Your task to perform on an android device: move an email to a new category in the gmail app Image 0: 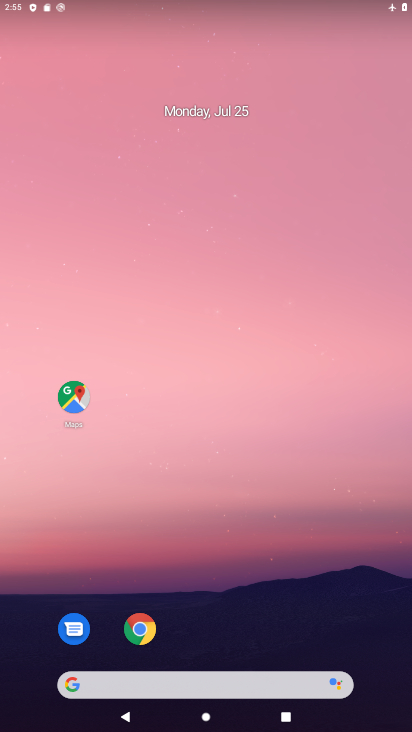
Step 0: drag from (302, 662) to (260, 0)
Your task to perform on an android device: move an email to a new category in the gmail app Image 1: 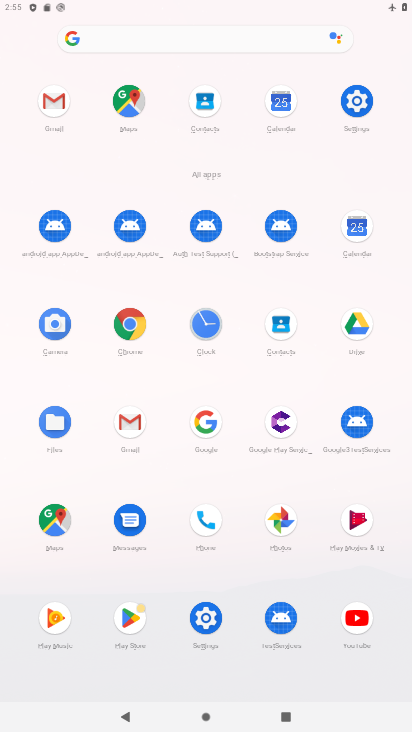
Step 1: click (46, 103)
Your task to perform on an android device: move an email to a new category in the gmail app Image 2: 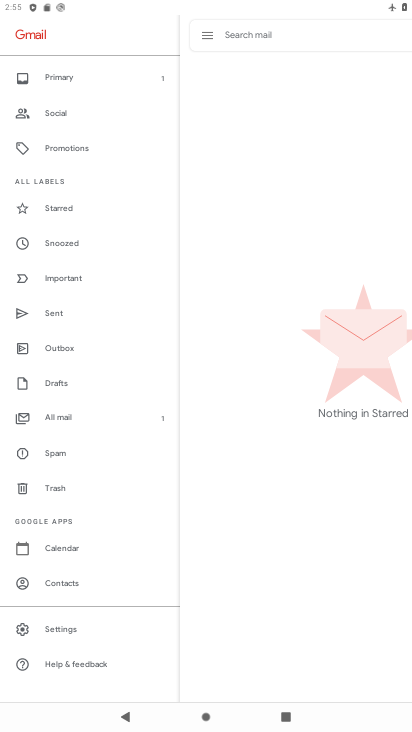
Step 2: click (58, 426)
Your task to perform on an android device: move an email to a new category in the gmail app Image 3: 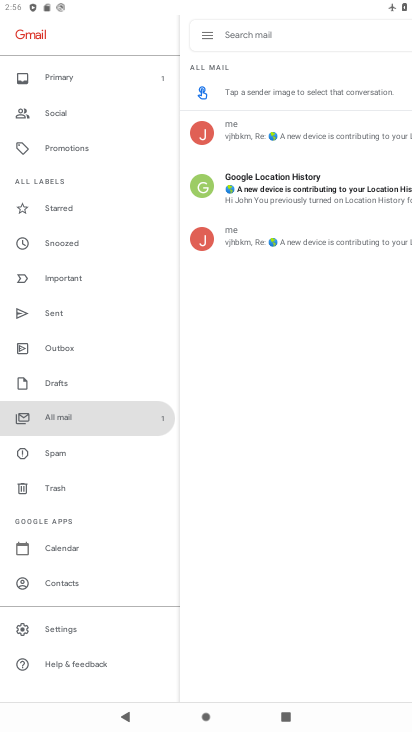
Step 3: click (280, 139)
Your task to perform on an android device: move an email to a new category in the gmail app Image 4: 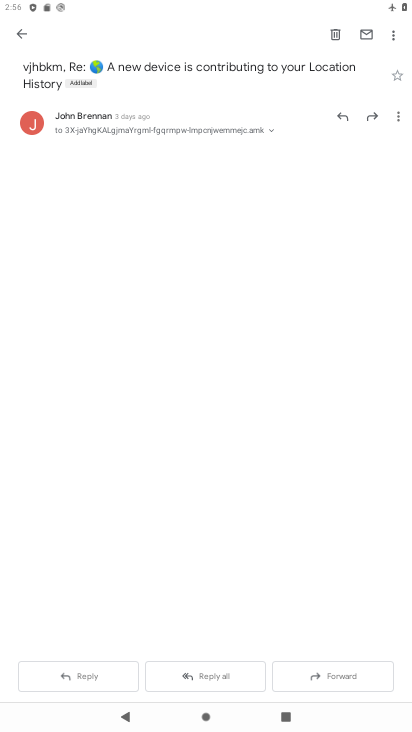
Step 4: click (393, 37)
Your task to perform on an android device: move an email to a new category in the gmail app Image 5: 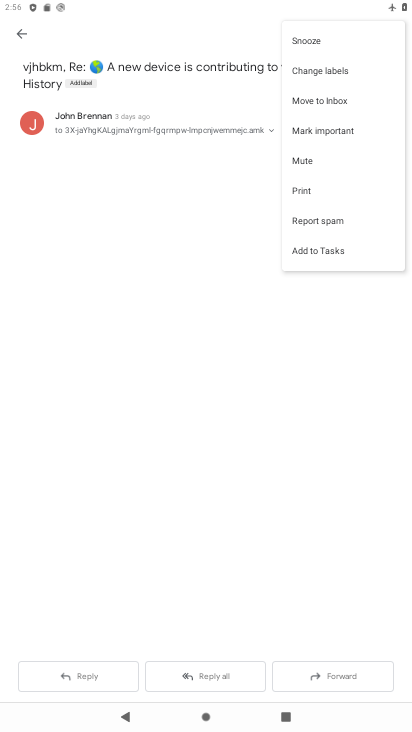
Step 5: click (308, 133)
Your task to perform on an android device: move an email to a new category in the gmail app Image 6: 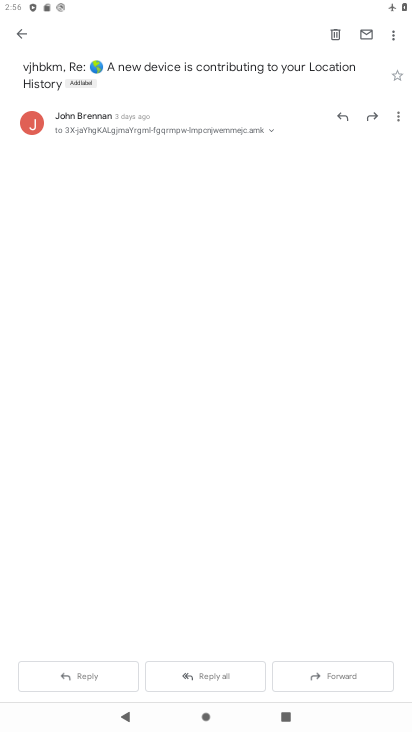
Step 6: task complete